Your task to perform on an android device: open chrome and create a bookmark for the current page Image 0: 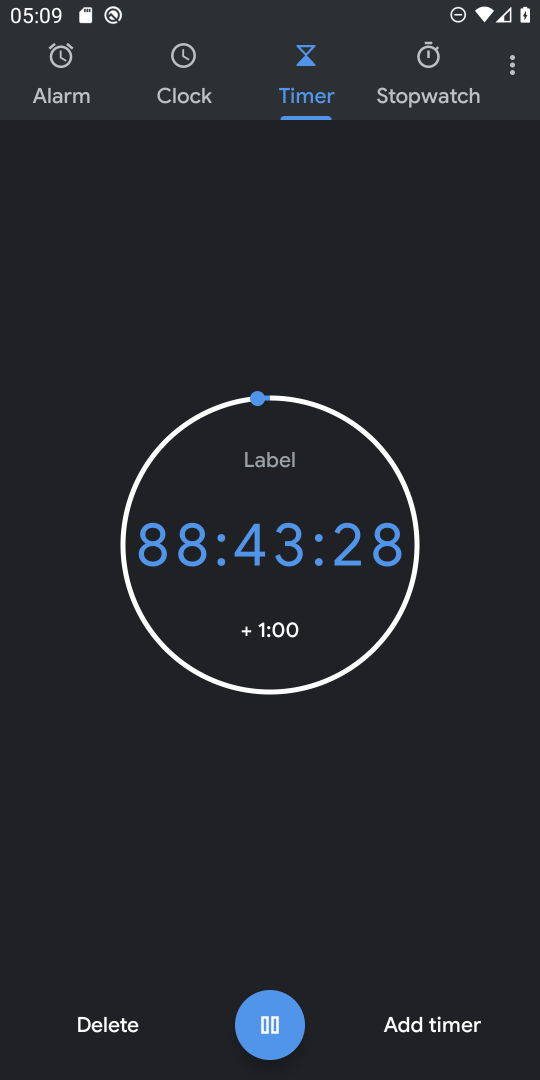
Step 0: press home button
Your task to perform on an android device: open chrome and create a bookmark for the current page Image 1: 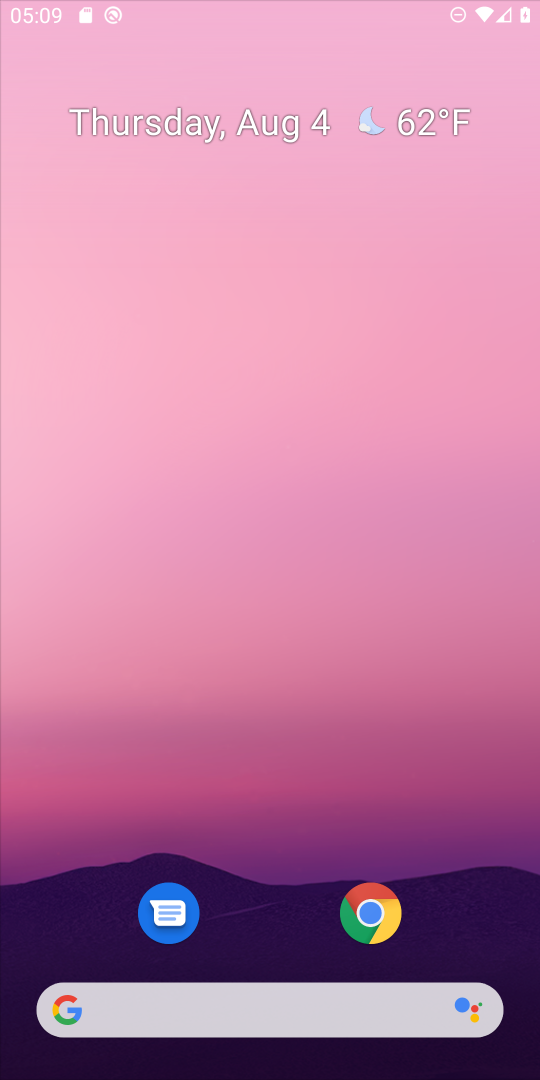
Step 1: drag from (379, 888) to (374, 1)
Your task to perform on an android device: open chrome and create a bookmark for the current page Image 2: 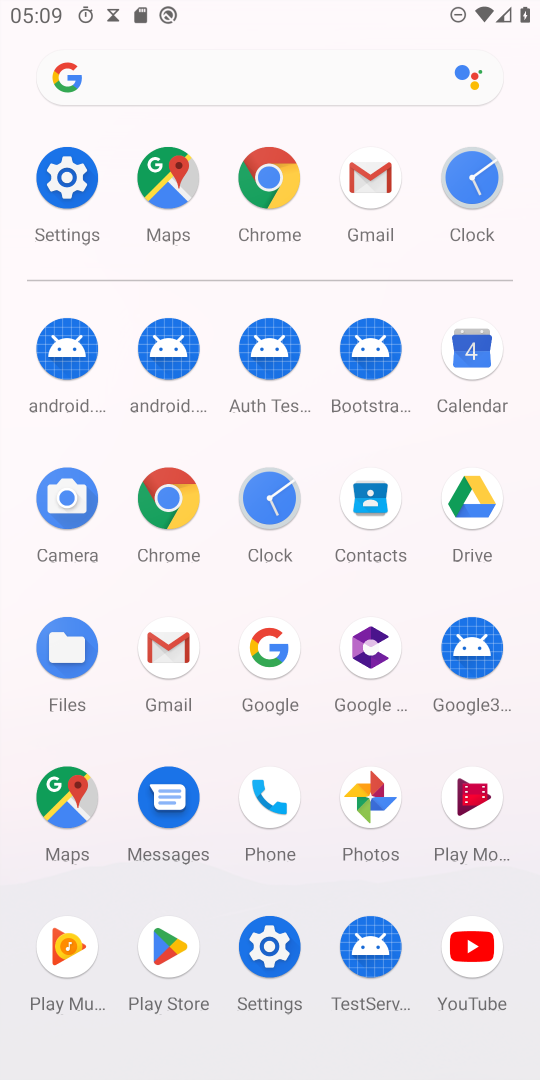
Step 2: click (182, 483)
Your task to perform on an android device: open chrome and create a bookmark for the current page Image 3: 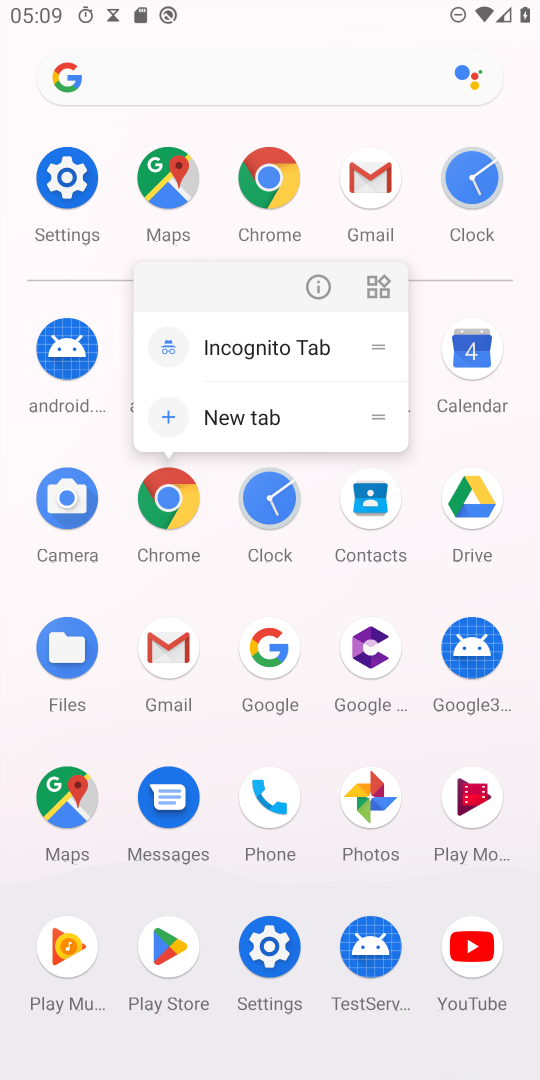
Step 3: click (182, 483)
Your task to perform on an android device: open chrome and create a bookmark for the current page Image 4: 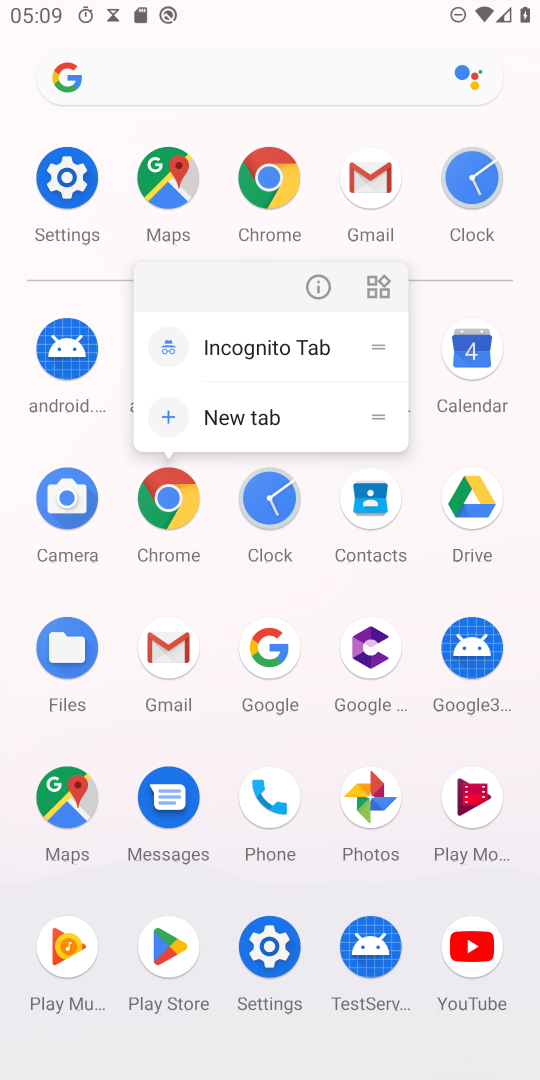
Step 4: click (182, 483)
Your task to perform on an android device: open chrome and create a bookmark for the current page Image 5: 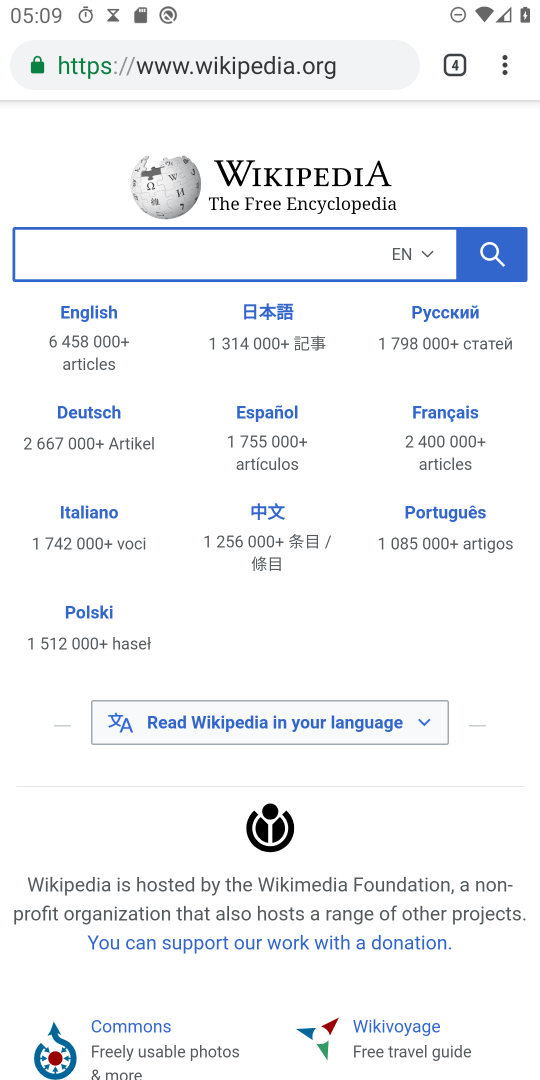
Step 5: click (495, 56)
Your task to perform on an android device: open chrome and create a bookmark for the current page Image 6: 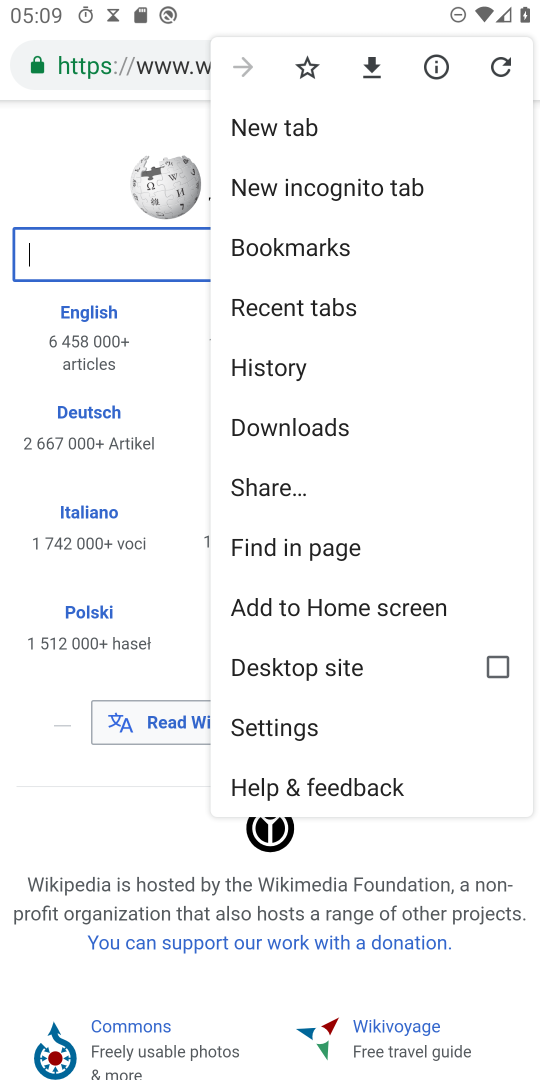
Step 6: click (265, 239)
Your task to perform on an android device: open chrome and create a bookmark for the current page Image 7: 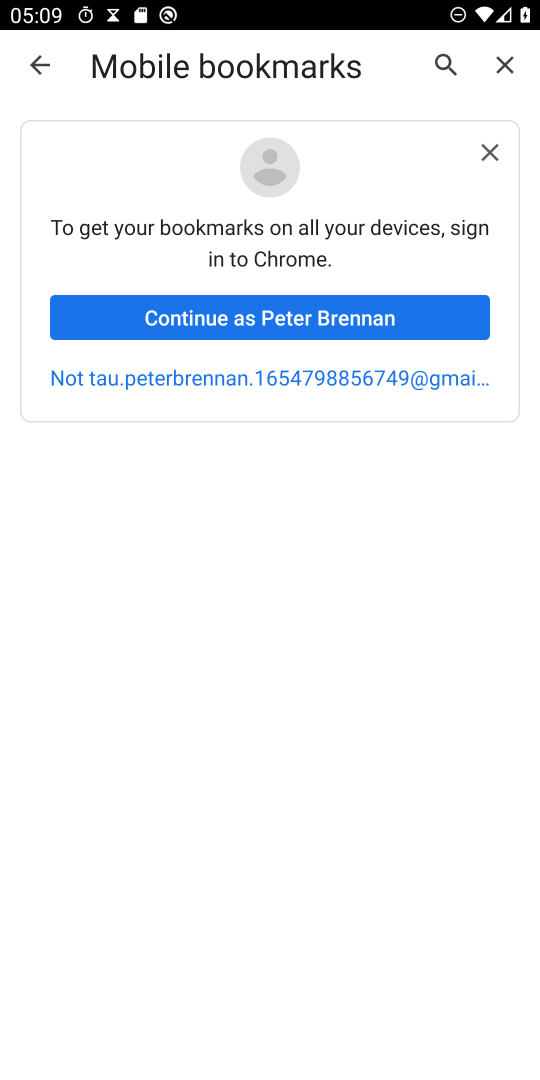
Step 7: press back button
Your task to perform on an android device: open chrome and create a bookmark for the current page Image 8: 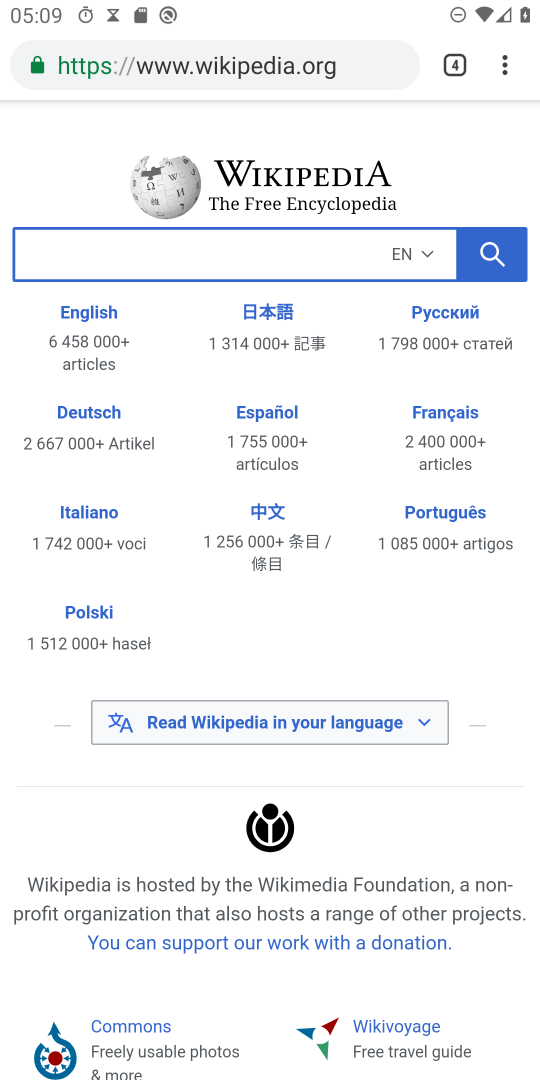
Step 8: click (510, 56)
Your task to perform on an android device: open chrome and create a bookmark for the current page Image 9: 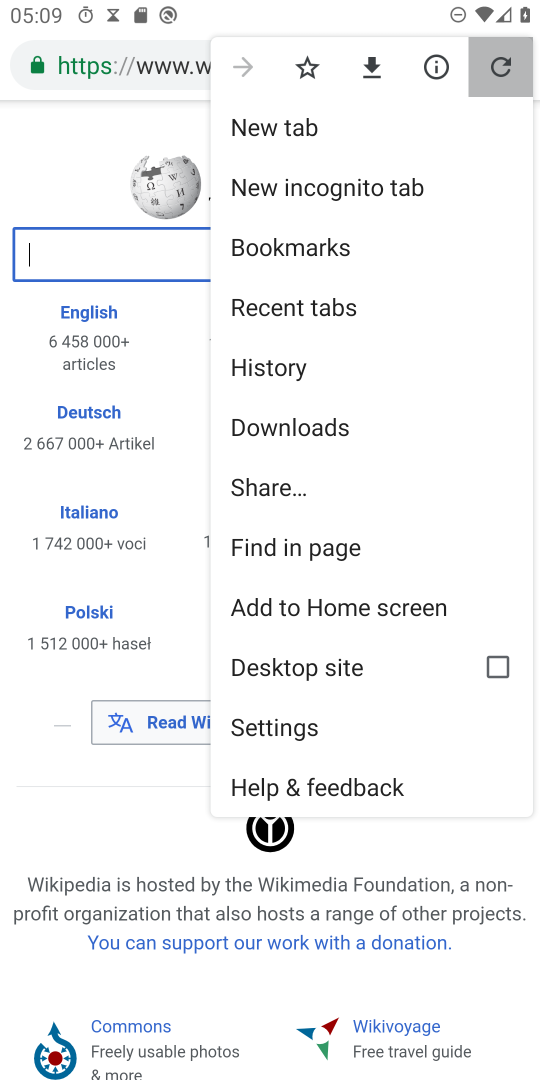
Step 9: click (490, 71)
Your task to perform on an android device: open chrome and create a bookmark for the current page Image 10: 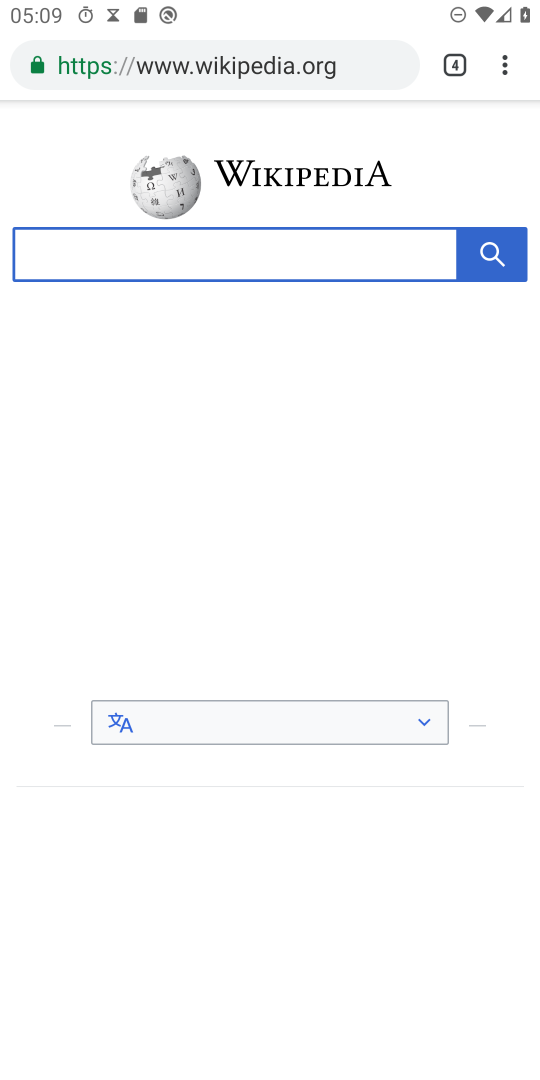
Step 10: drag from (513, 56) to (301, 57)
Your task to perform on an android device: open chrome and create a bookmark for the current page Image 11: 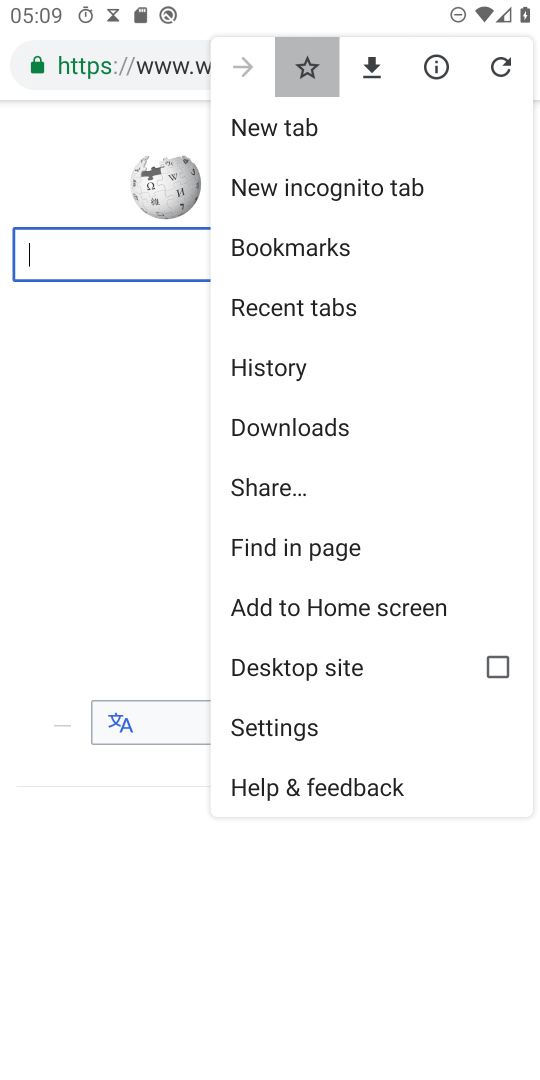
Step 11: click (301, 57)
Your task to perform on an android device: open chrome and create a bookmark for the current page Image 12: 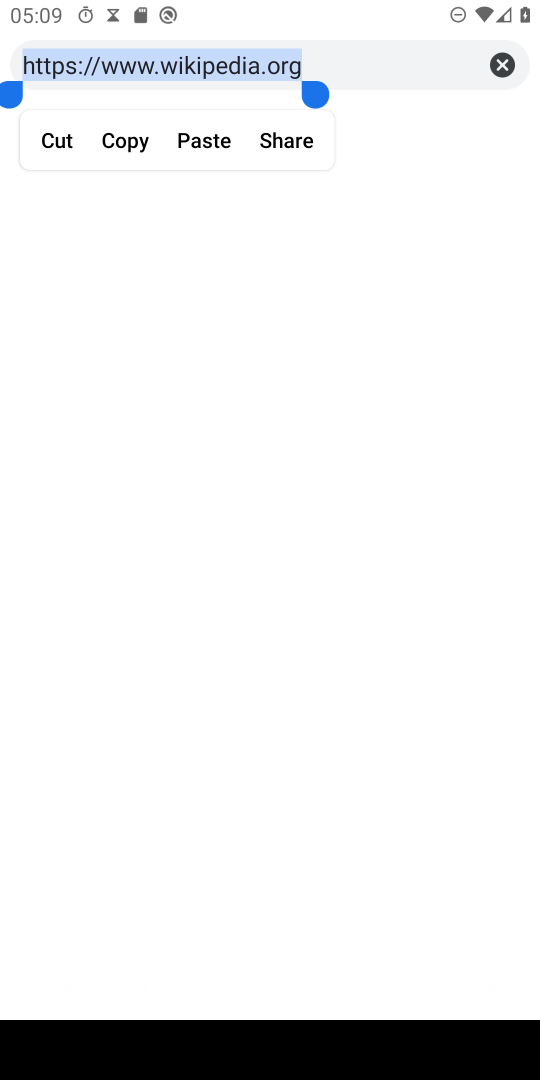
Step 12: task complete